Your task to perform on an android device: open the mobile data screen to see how much data has been used Image 0: 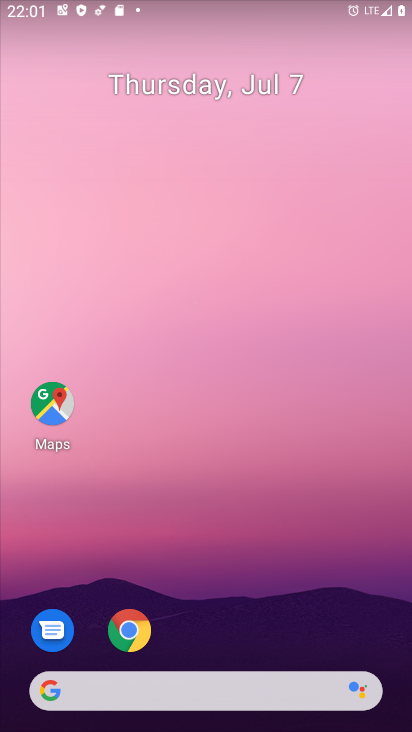
Step 0: drag from (158, 607) to (231, 0)
Your task to perform on an android device: open the mobile data screen to see how much data has been used Image 1: 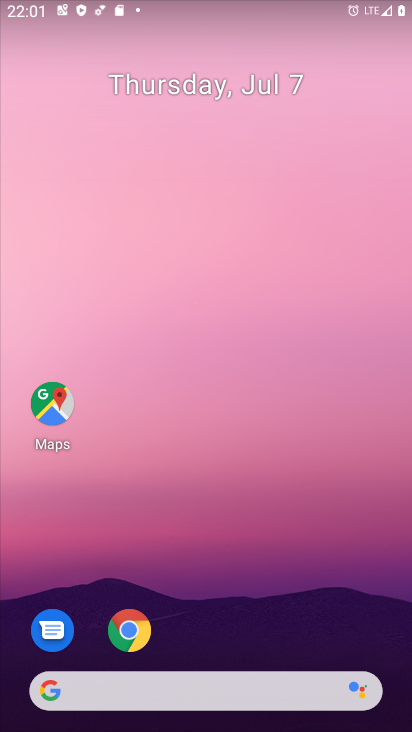
Step 1: drag from (202, 625) to (240, 168)
Your task to perform on an android device: open the mobile data screen to see how much data has been used Image 2: 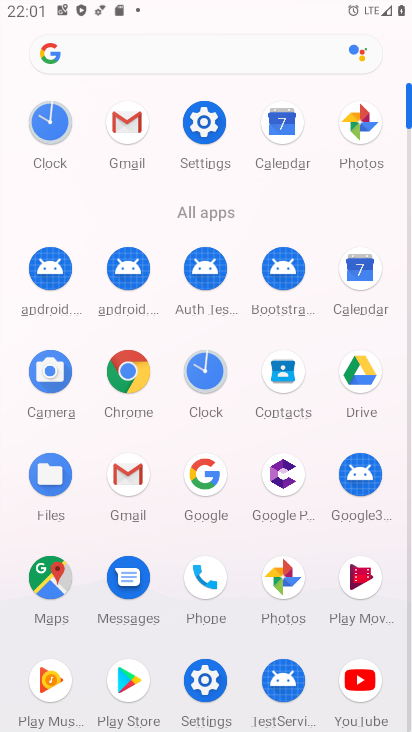
Step 2: click (200, 119)
Your task to perform on an android device: open the mobile data screen to see how much data has been used Image 3: 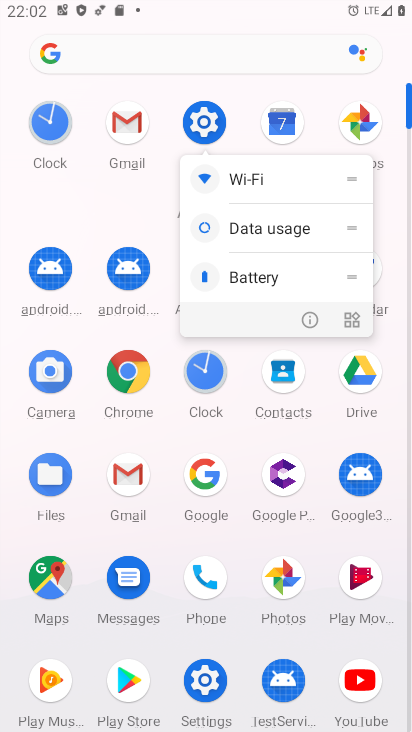
Step 3: click (308, 323)
Your task to perform on an android device: open the mobile data screen to see how much data has been used Image 4: 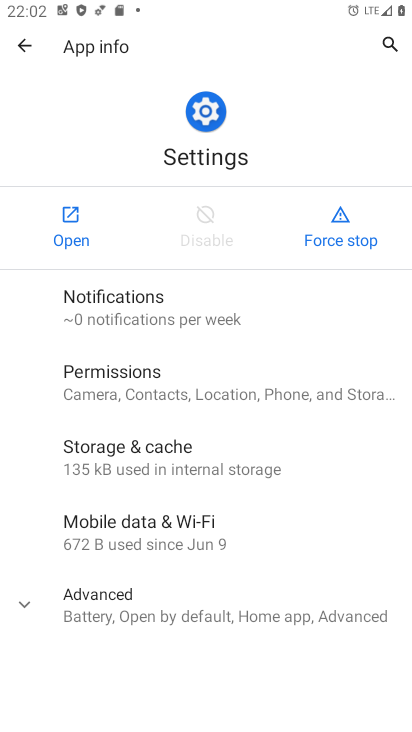
Step 4: click (71, 232)
Your task to perform on an android device: open the mobile data screen to see how much data has been used Image 5: 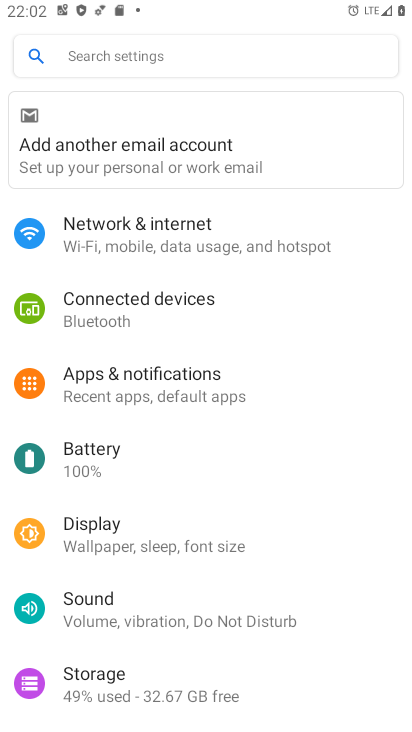
Step 5: drag from (129, 668) to (217, 221)
Your task to perform on an android device: open the mobile data screen to see how much data has been used Image 6: 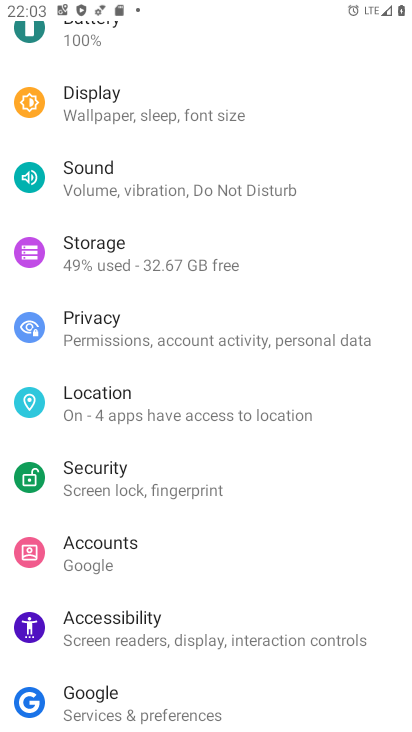
Step 6: drag from (156, 149) to (220, 730)
Your task to perform on an android device: open the mobile data screen to see how much data has been used Image 7: 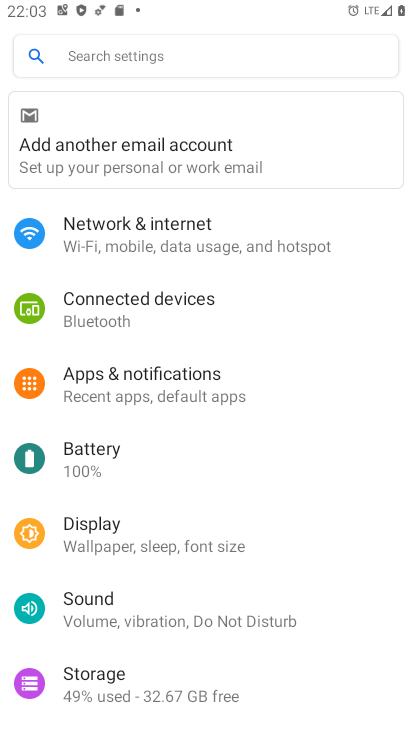
Step 7: click (143, 248)
Your task to perform on an android device: open the mobile data screen to see how much data has been used Image 8: 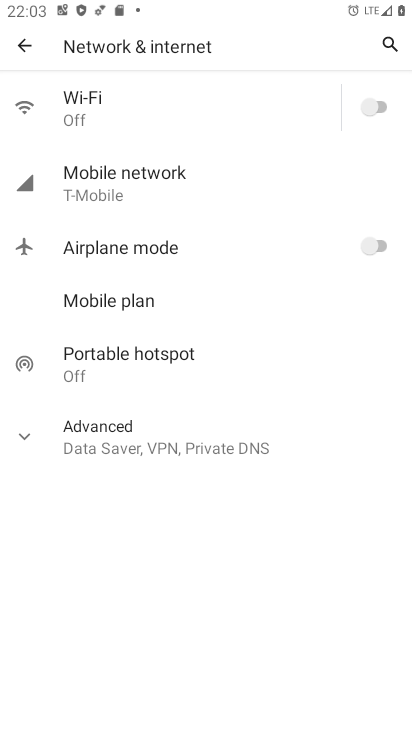
Step 8: click (180, 177)
Your task to perform on an android device: open the mobile data screen to see how much data has been used Image 9: 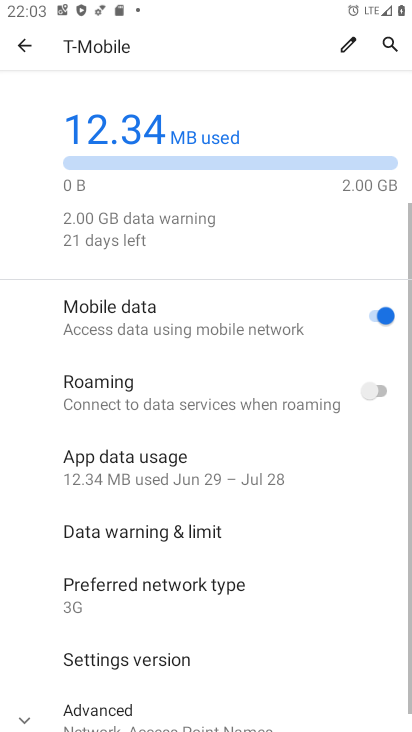
Step 9: drag from (217, 425) to (288, 244)
Your task to perform on an android device: open the mobile data screen to see how much data has been used Image 10: 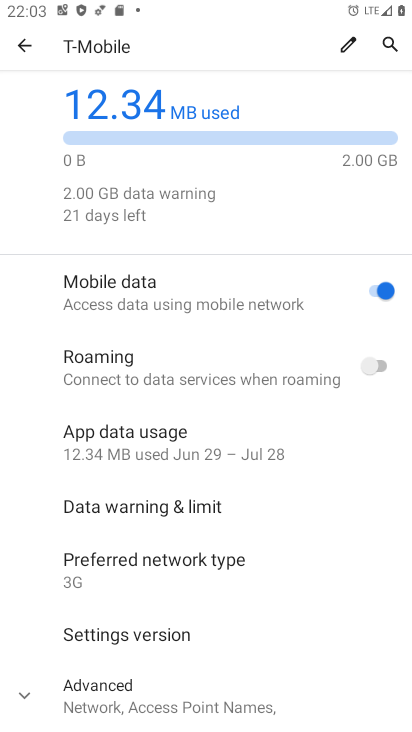
Step 10: click (129, 434)
Your task to perform on an android device: open the mobile data screen to see how much data has been used Image 11: 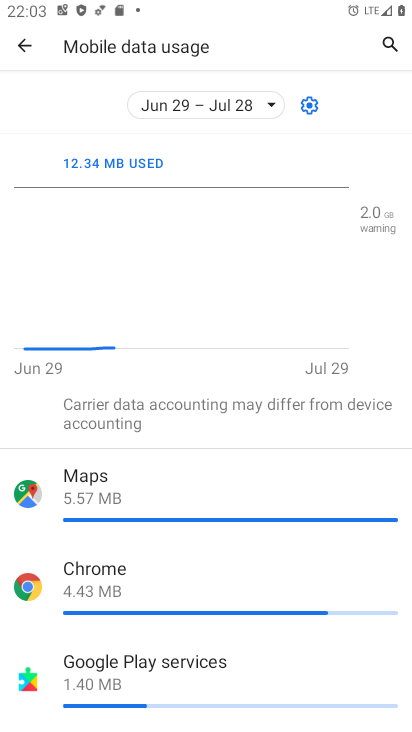
Step 11: task complete